Your task to perform on an android device: Open the stopwatch Image 0: 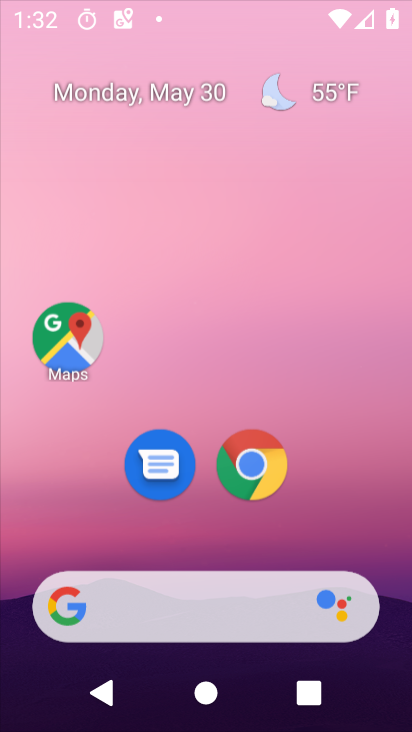
Step 0: click (256, 450)
Your task to perform on an android device: Open the stopwatch Image 1: 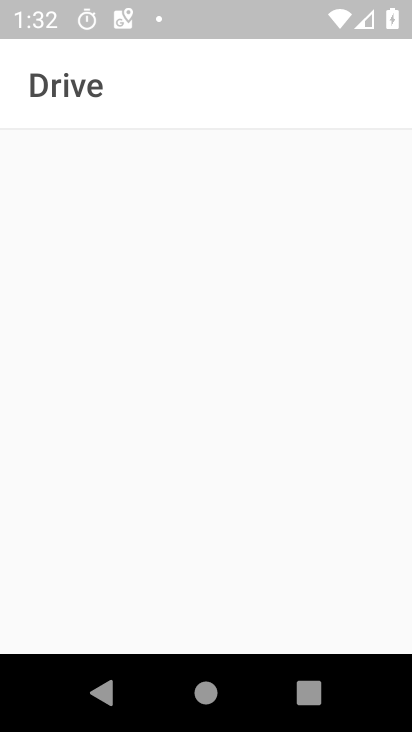
Step 1: press back button
Your task to perform on an android device: Open the stopwatch Image 2: 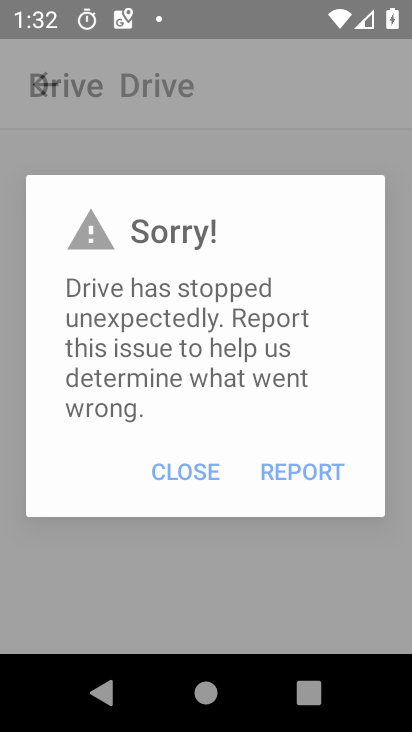
Step 2: press home button
Your task to perform on an android device: Open the stopwatch Image 3: 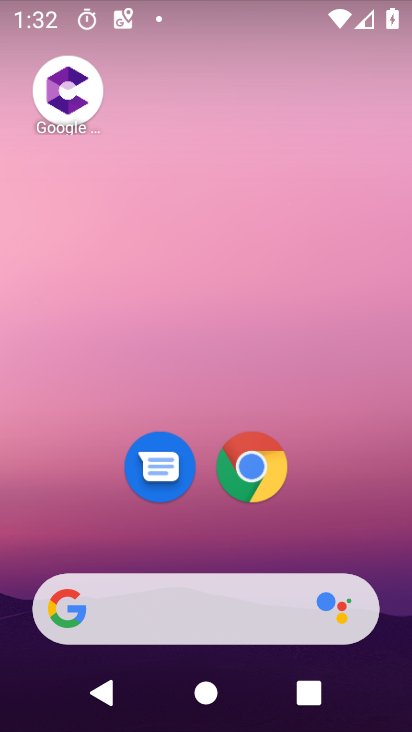
Step 3: drag from (371, 569) to (299, 98)
Your task to perform on an android device: Open the stopwatch Image 4: 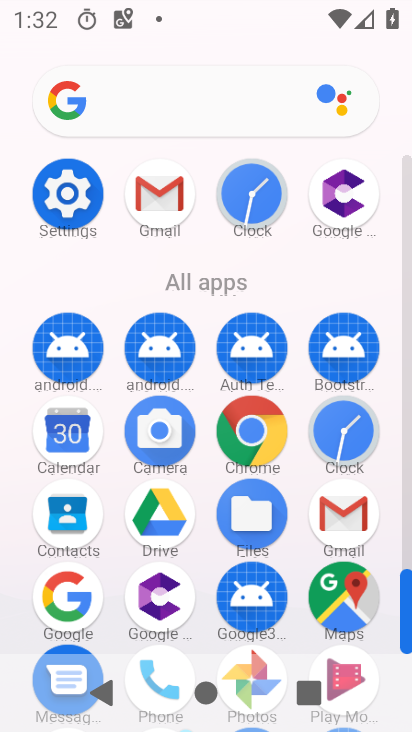
Step 4: click (337, 417)
Your task to perform on an android device: Open the stopwatch Image 5: 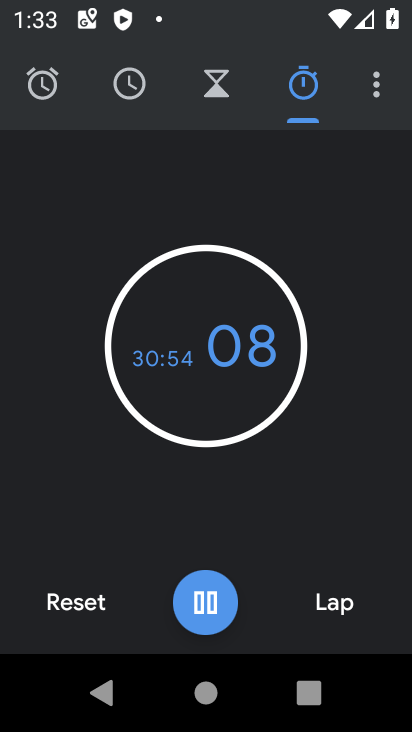
Step 5: click (74, 606)
Your task to perform on an android device: Open the stopwatch Image 6: 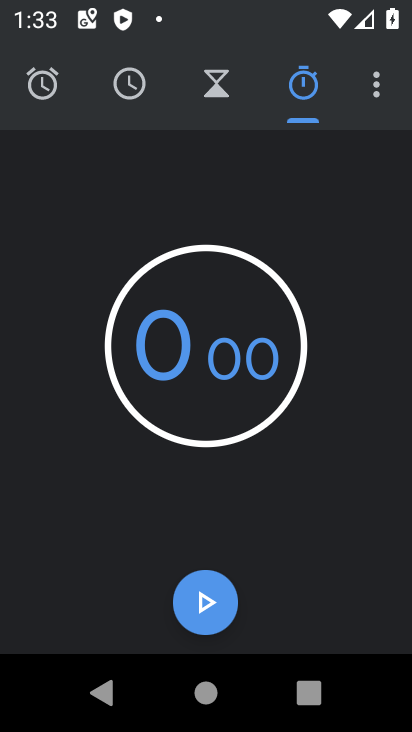
Step 6: click (210, 596)
Your task to perform on an android device: Open the stopwatch Image 7: 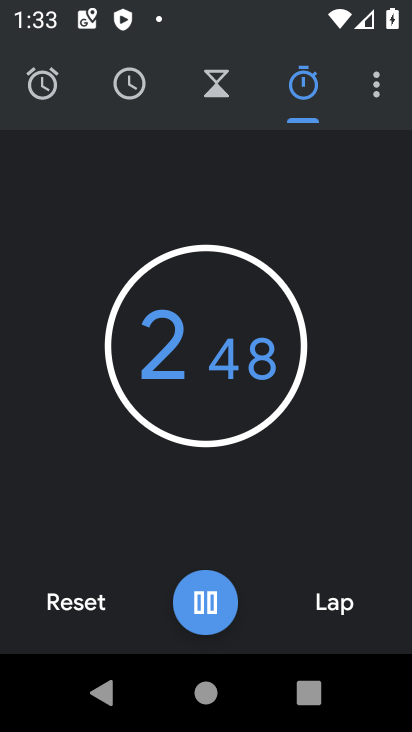
Step 7: task complete